Your task to perform on an android device: turn off location Image 0: 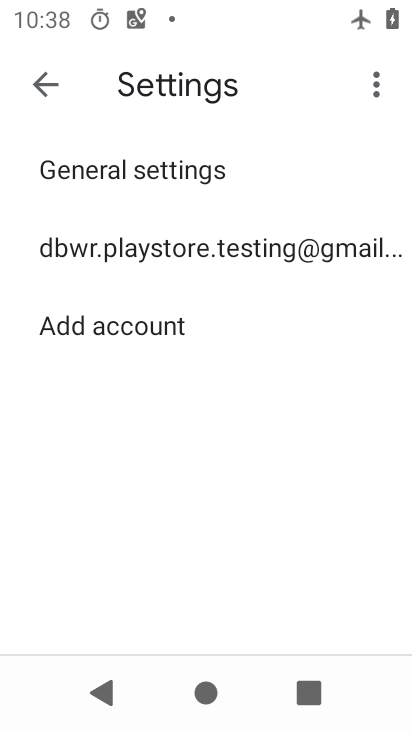
Step 0: press home button
Your task to perform on an android device: turn off location Image 1: 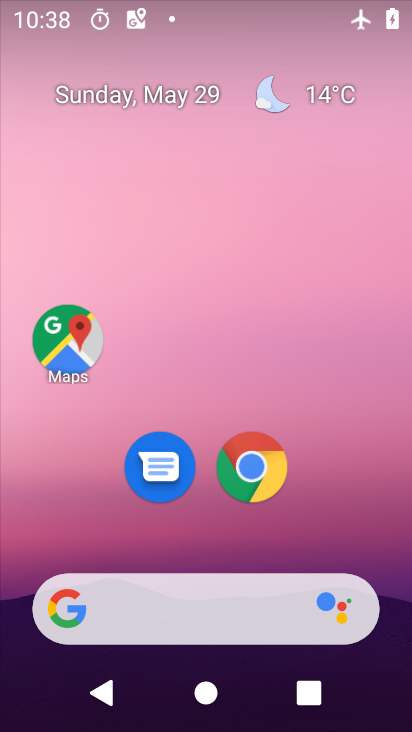
Step 1: drag from (207, 552) to (188, 220)
Your task to perform on an android device: turn off location Image 2: 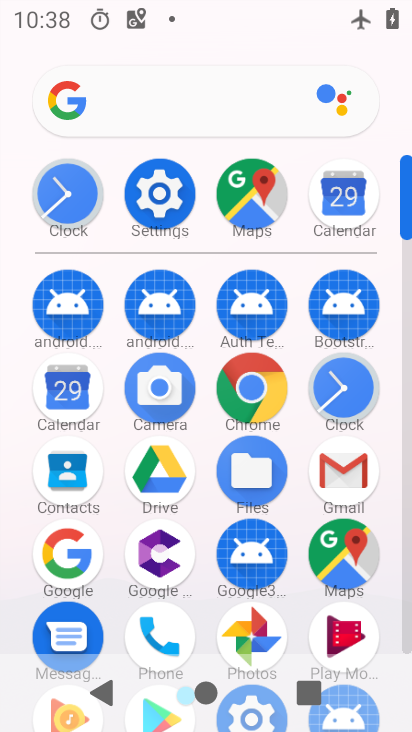
Step 2: click (168, 200)
Your task to perform on an android device: turn off location Image 3: 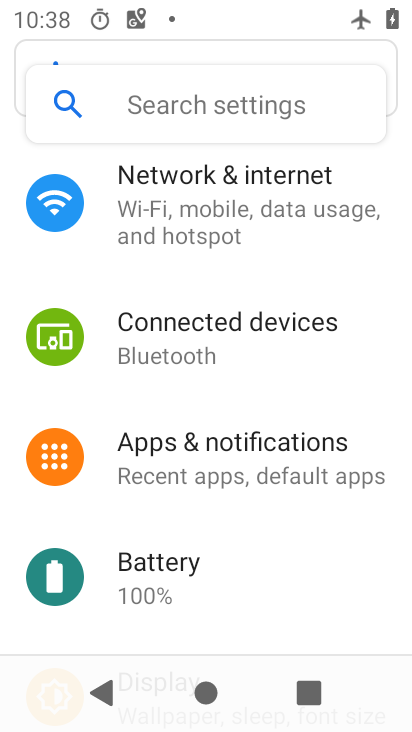
Step 3: drag from (210, 546) to (229, 280)
Your task to perform on an android device: turn off location Image 4: 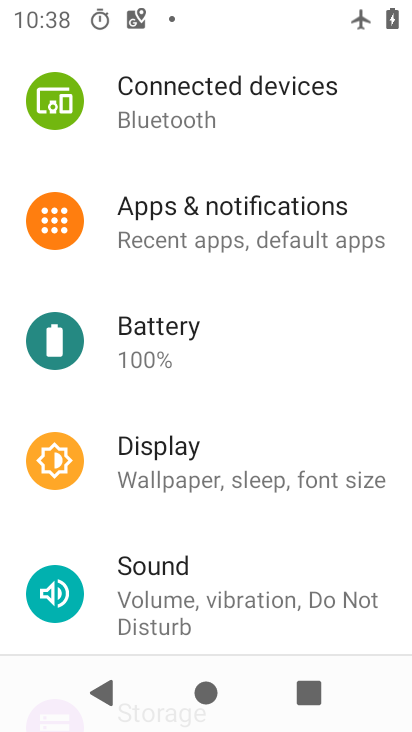
Step 4: drag from (229, 554) to (259, 342)
Your task to perform on an android device: turn off location Image 5: 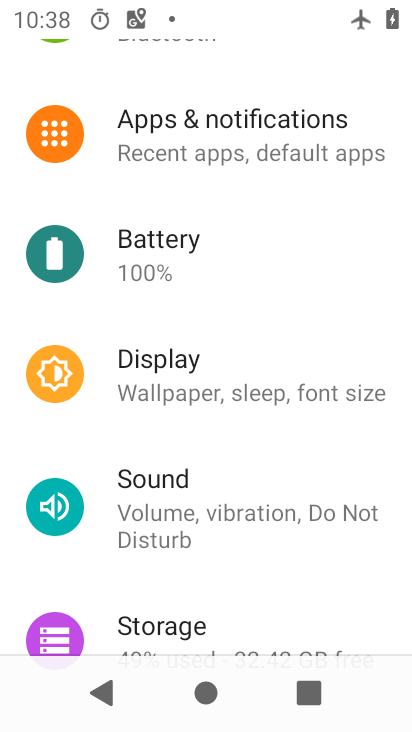
Step 5: drag from (263, 586) to (275, 329)
Your task to perform on an android device: turn off location Image 6: 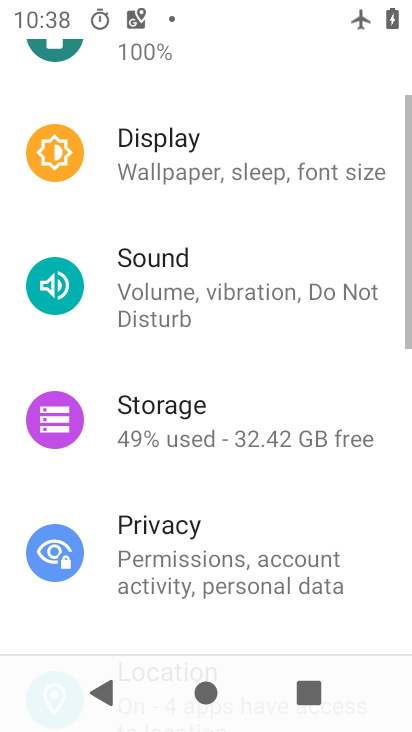
Step 6: drag from (260, 502) to (267, 246)
Your task to perform on an android device: turn off location Image 7: 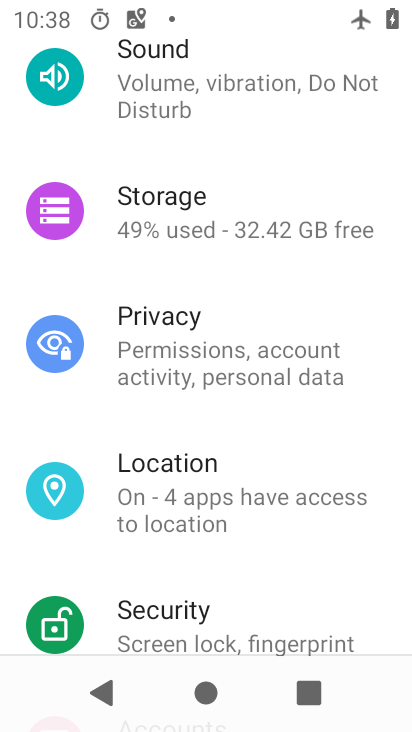
Step 7: click (232, 509)
Your task to perform on an android device: turn off location Image 8: 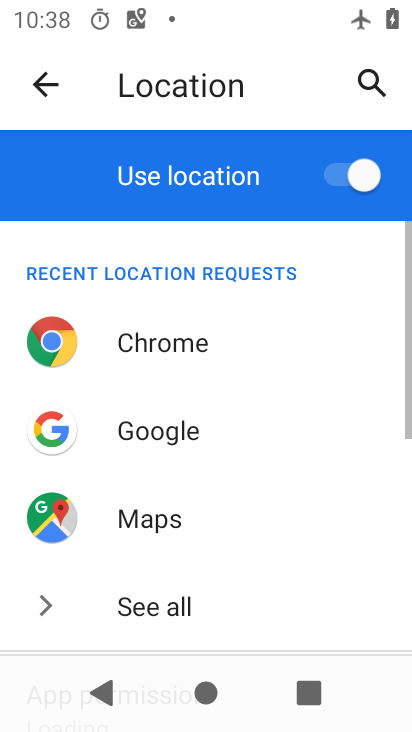
Step 8: drag from (213, 565) to (227, 268)
Your task to perform on an android device: turn off location Image 9: 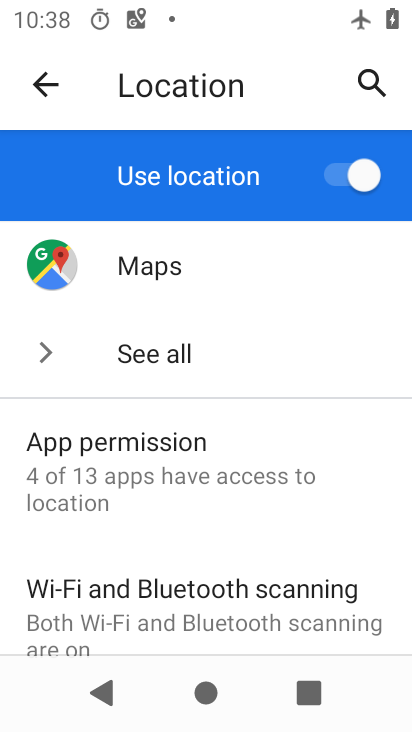
Step 9: drag from (209, 478) to (225, 278)
Your task to perform on an android device: turn off location Image 10: 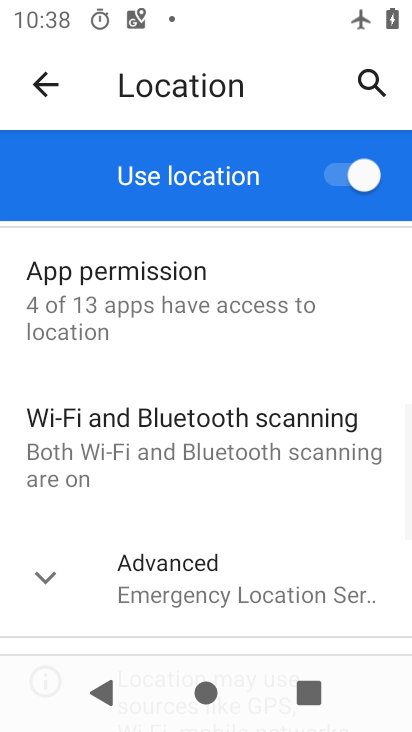
Step 10: drag from (264, 560) to (271, 370)
Your task to perform on an android device: turn off location Image 11: 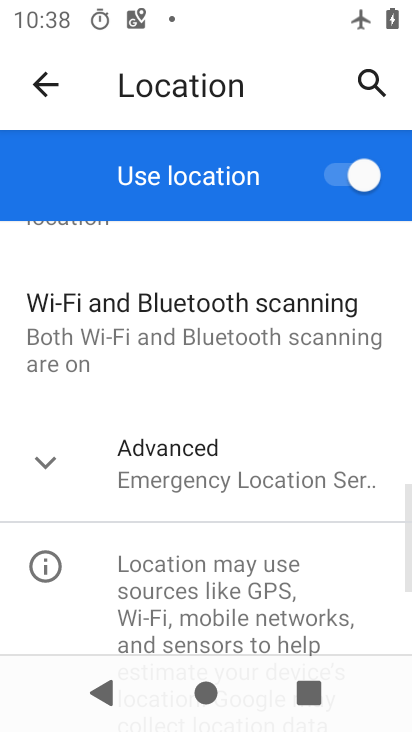
Step 11: click (328, 177)
Your task to perform on an android device: turn off location Image 12: 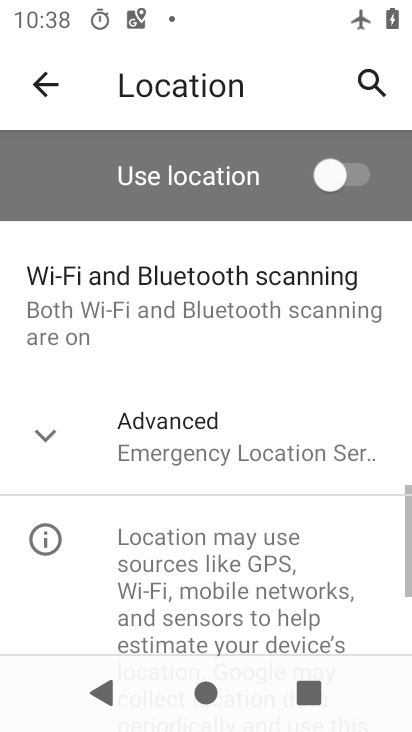
Step 12: task complete